Your task to perform on an android device: move a message to another label in the gmail app Image 0: 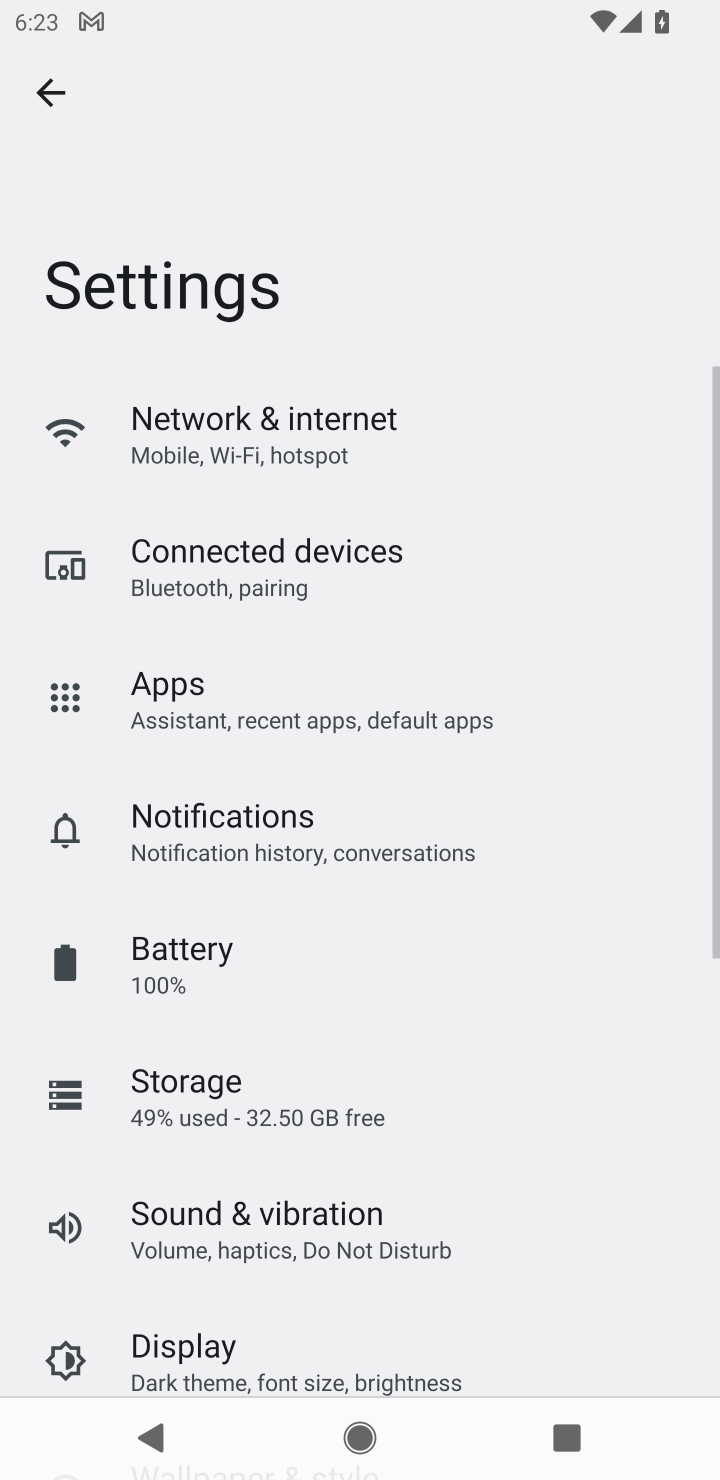
Step 0: press home button
Your task to perform on an android device: move a message to another label in the gmail app Image 1: 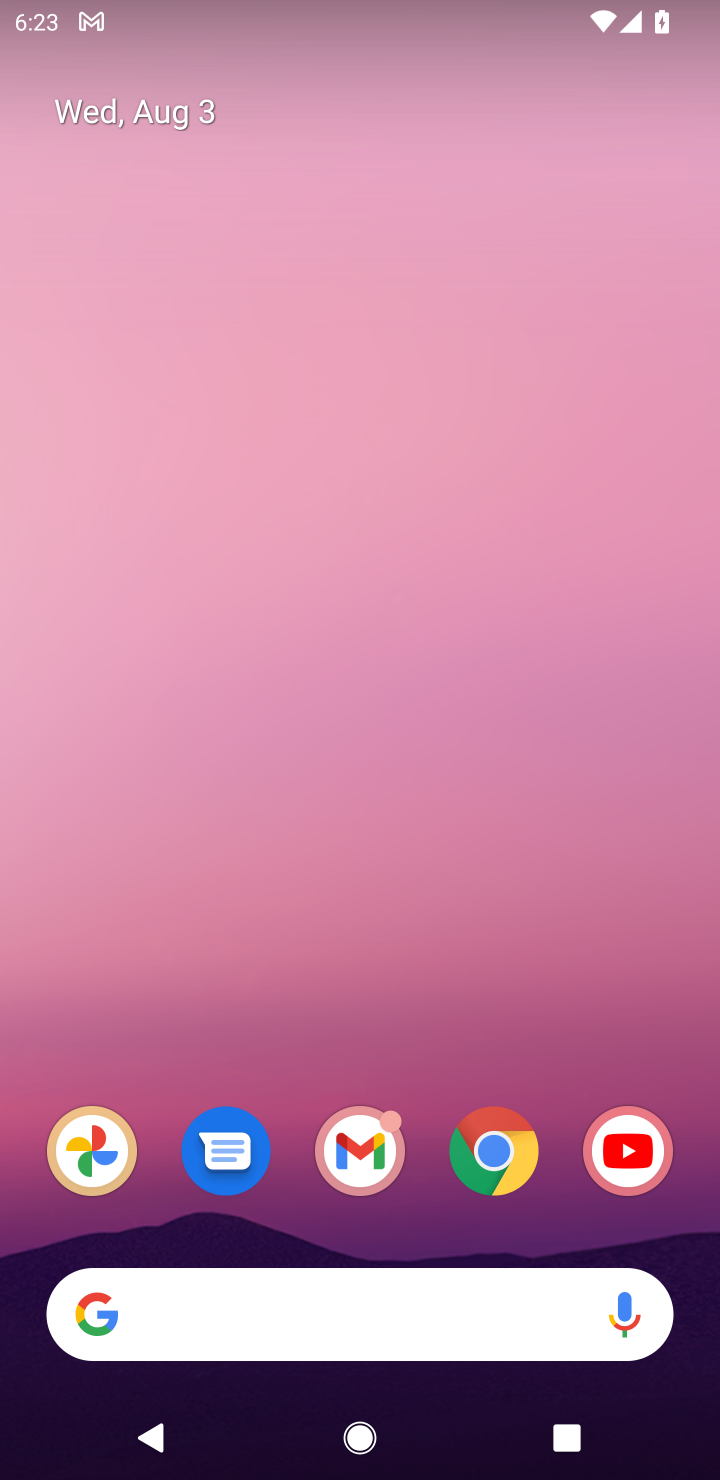
Step 1: click (365, 1171)
Your task to perform on an android device: move a message to another label in the gmail app Image 2: 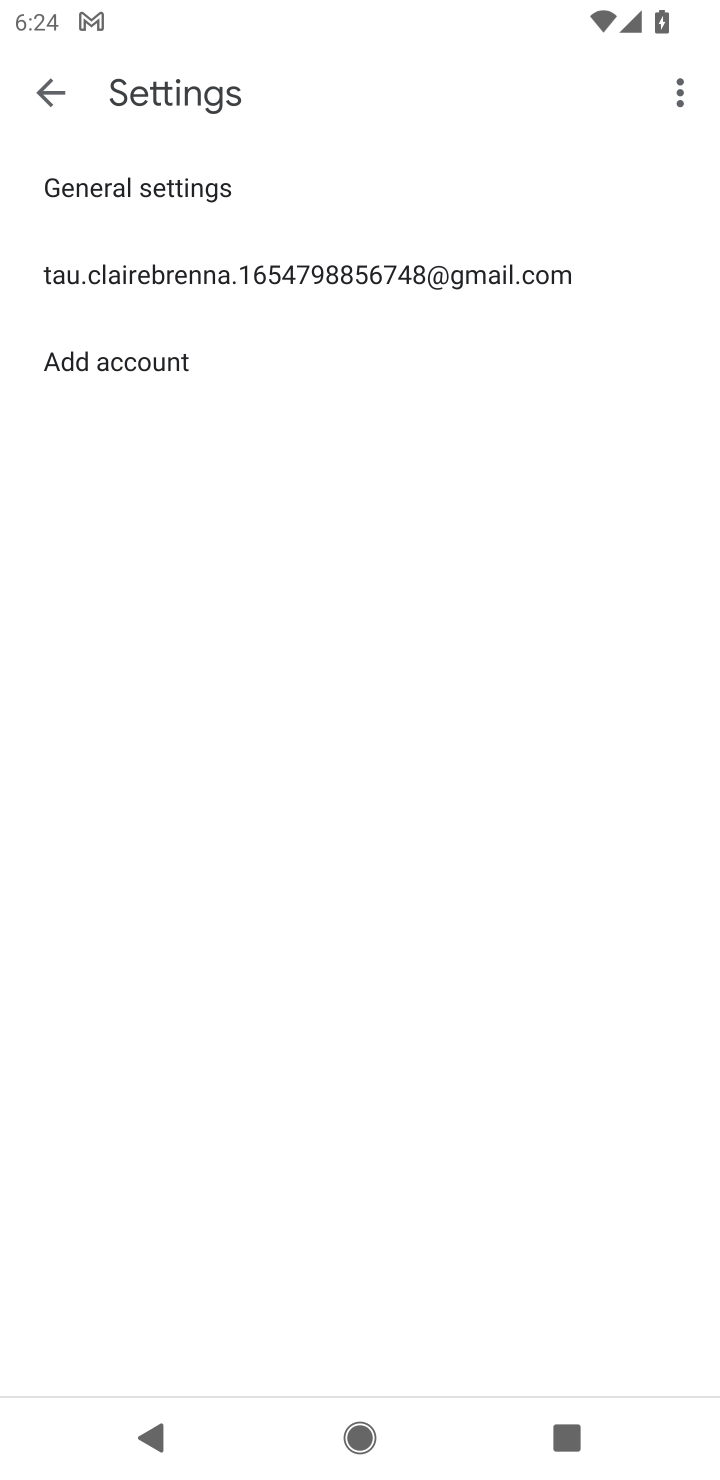
Step 2: click (63, 99)
Your task to perform on an android device: move a message to another label in the gmail app Image 3: 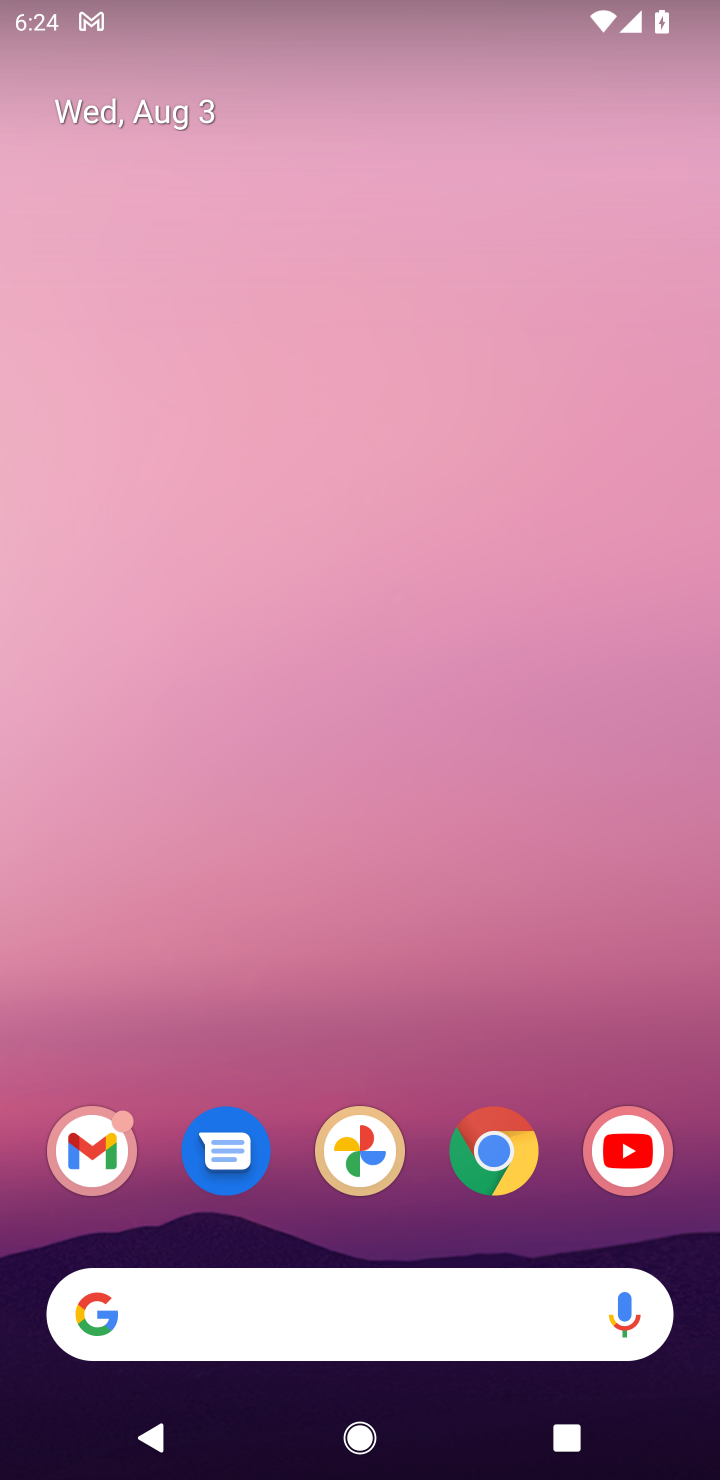
Step 3: click (102, 1163)
Your task to perform on an android device: move a message to another label in the gmail app Image 4: 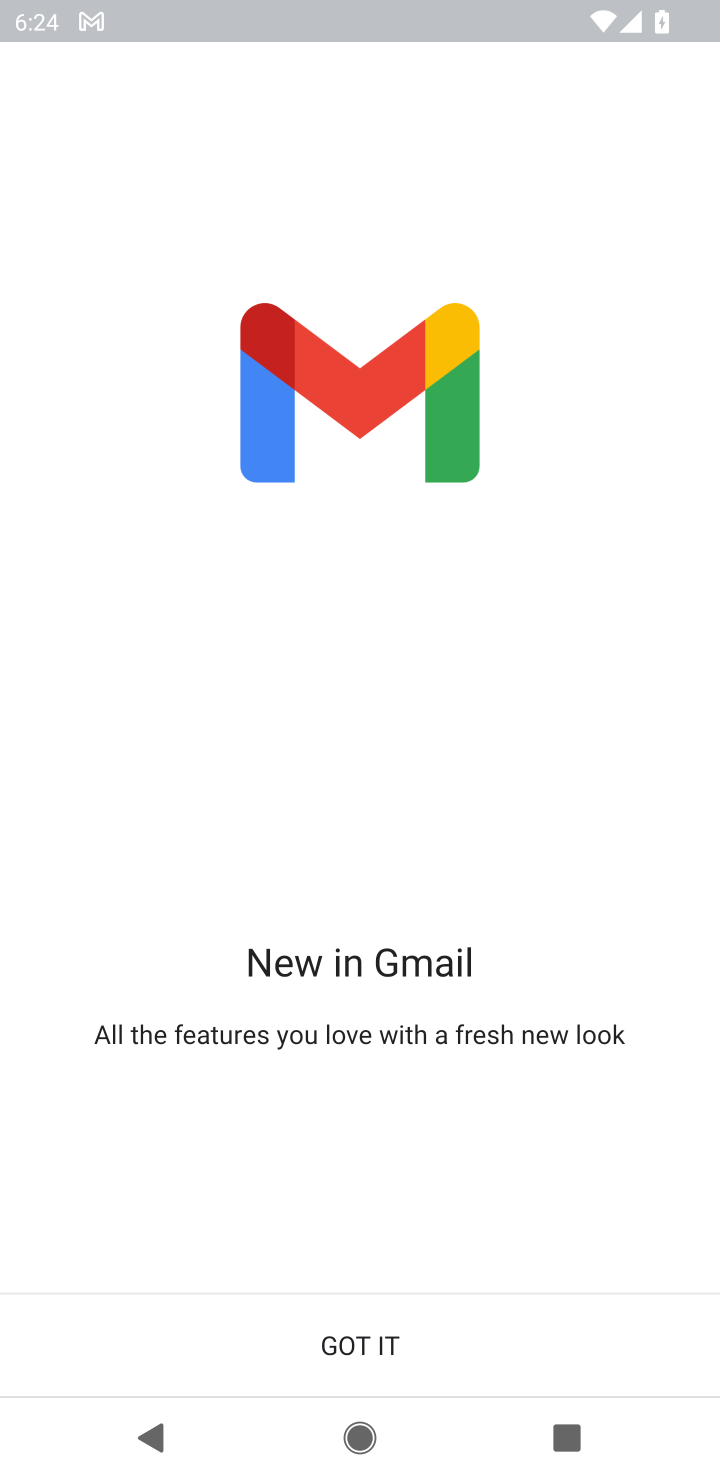
Step 4: click (418, 1332)
Your task to perform on an android device: move a message to another label in the gmail app Image 5: 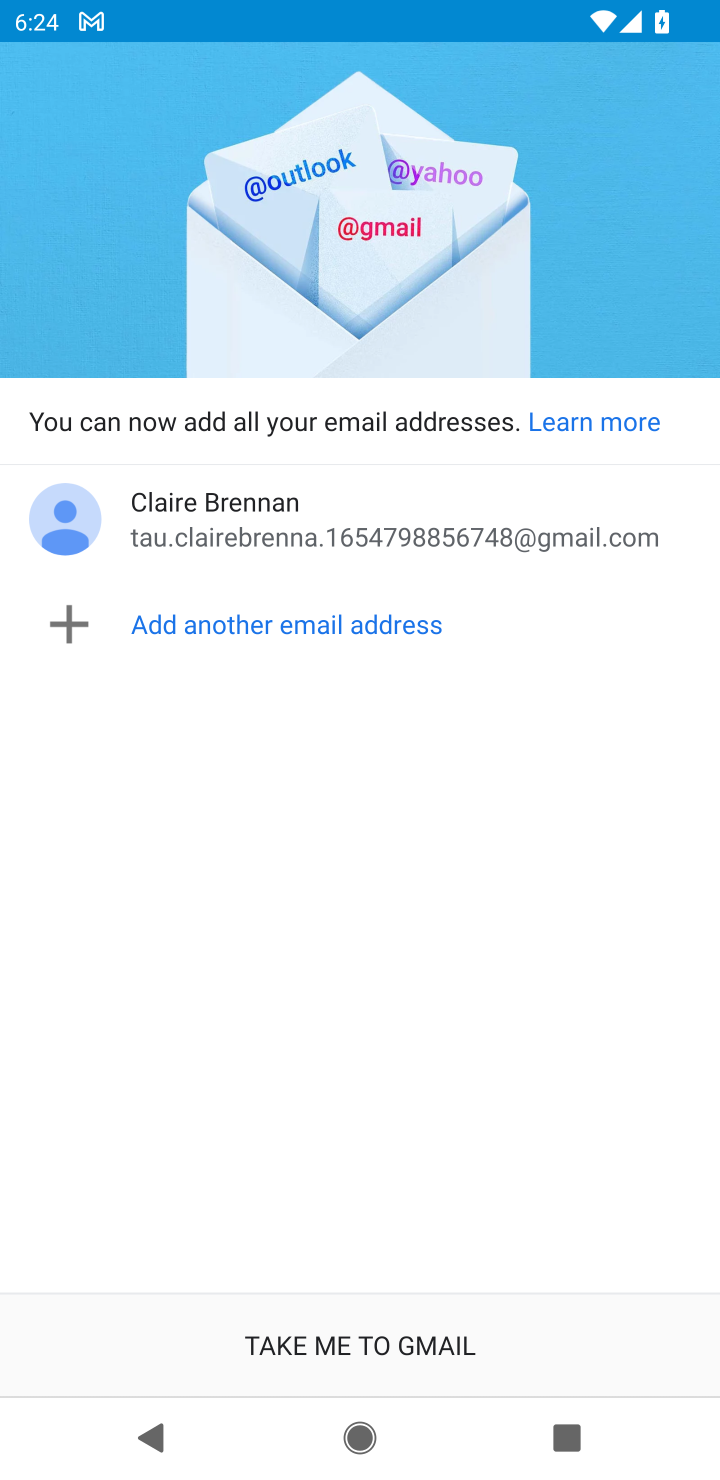
Step 5: click (418, 1332)
Your task to perform on an android device: move a message to another label in the gmail app Image 6: 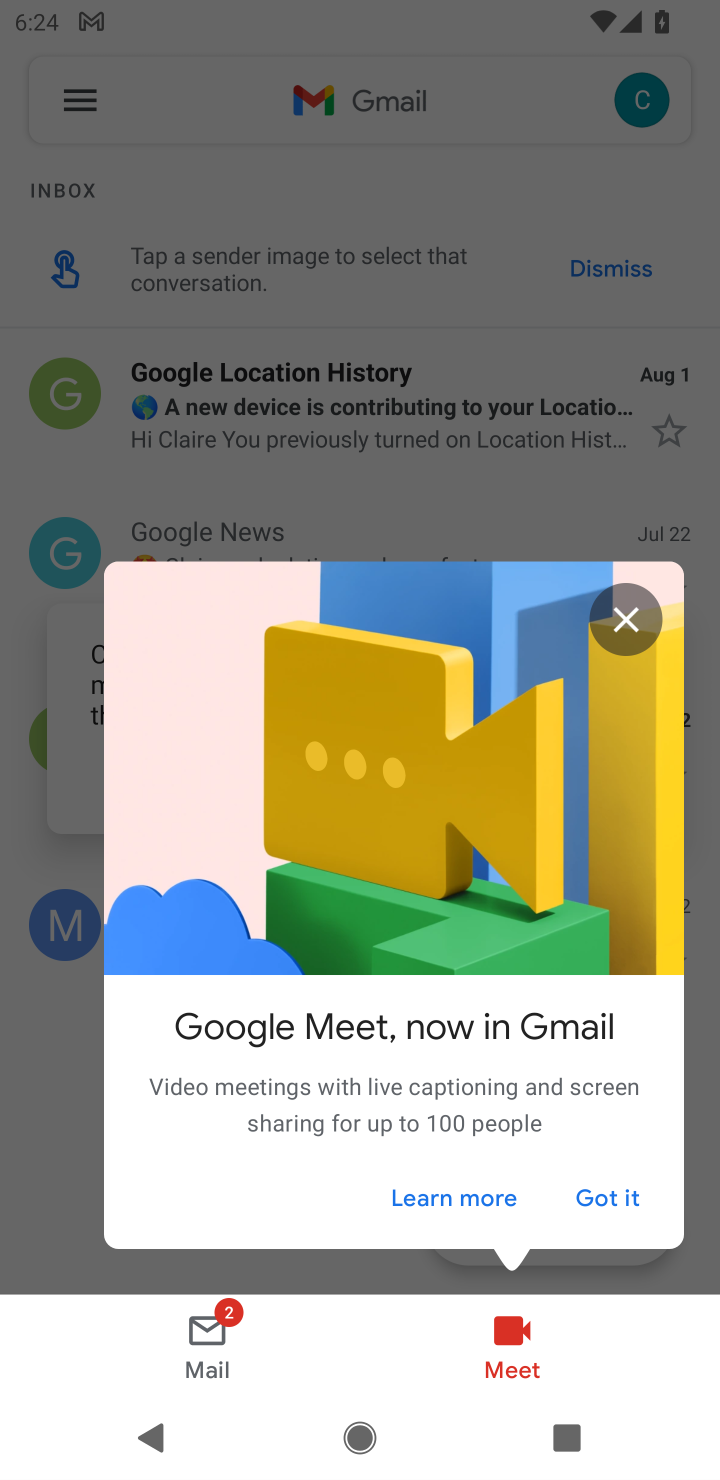
Step 6: click (630, 612)
Your task to perform on an android device: move a message to another label in the gmail app Image 7: 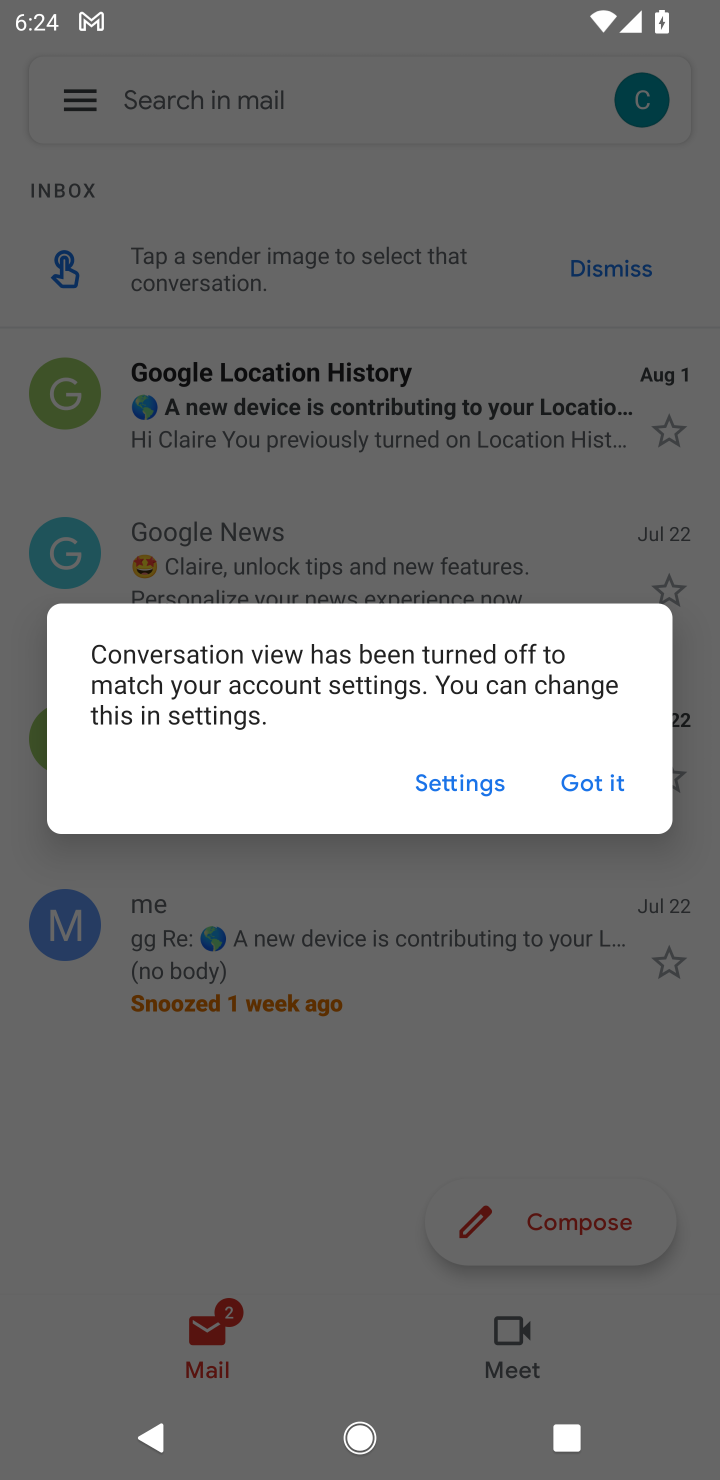
Step 7: click (574, 777)
Your task to perform on an android device: move a message to another label in the gmail app Image 8: 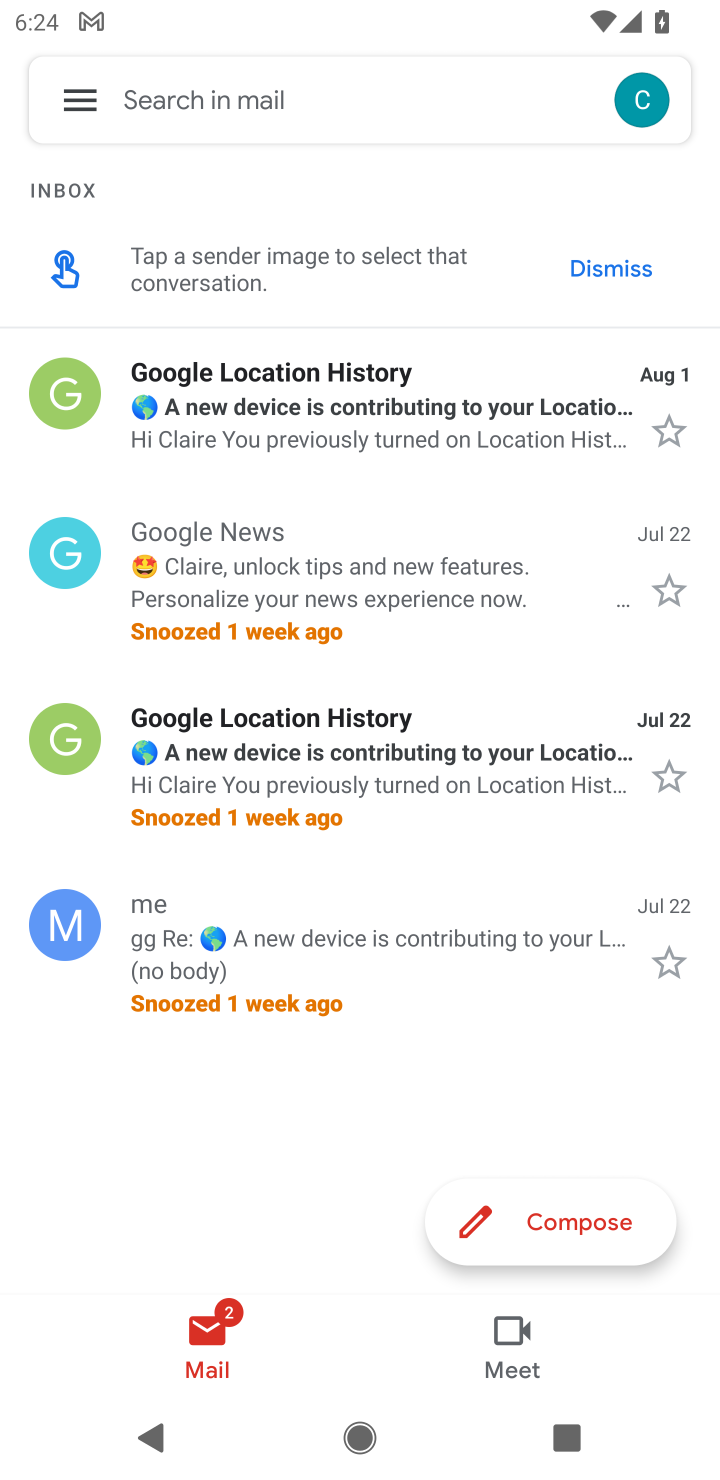
Step 8: click (520, 591)
Your task to perform on an android device: move a message to another label in the gmail app Image 9: 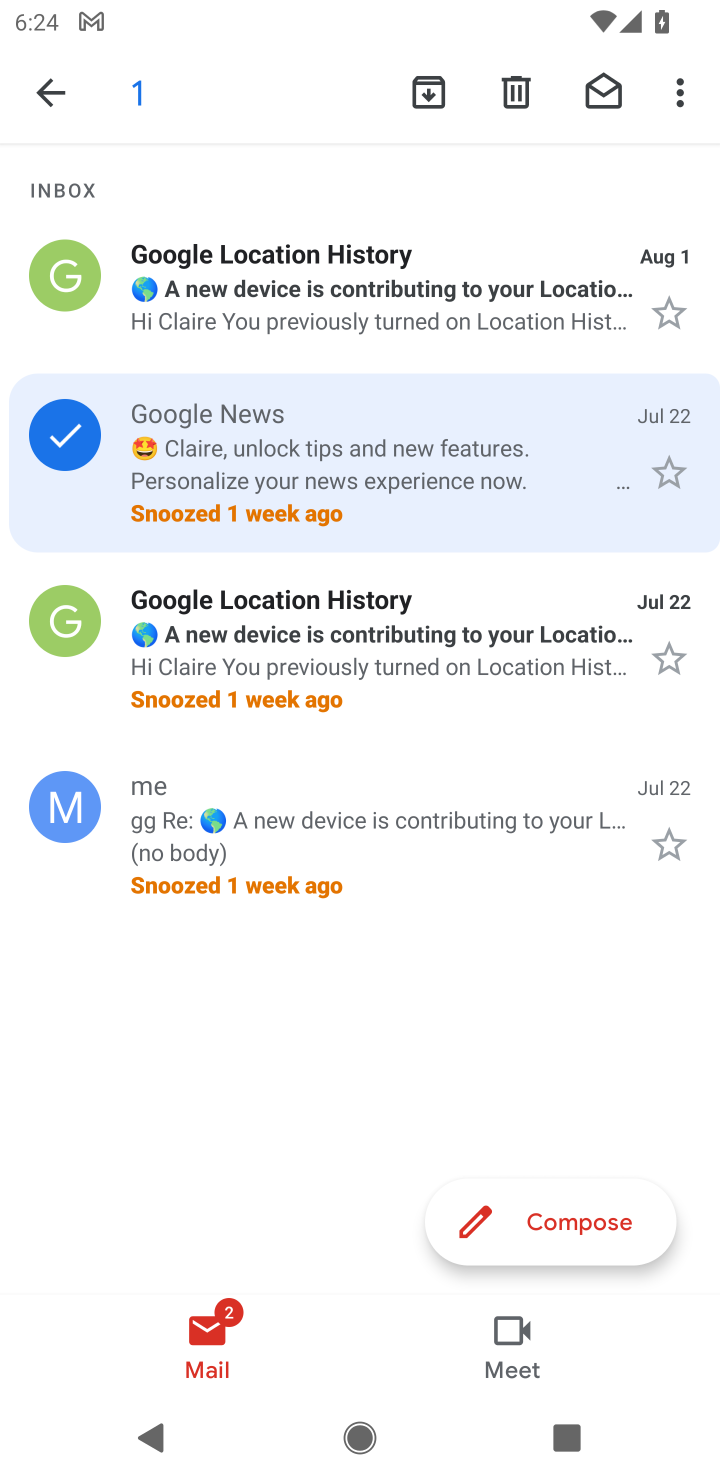
Step 9: click (694, 89)
Your task to perform on an android device: move a message to another label in the gmail app Image 10: 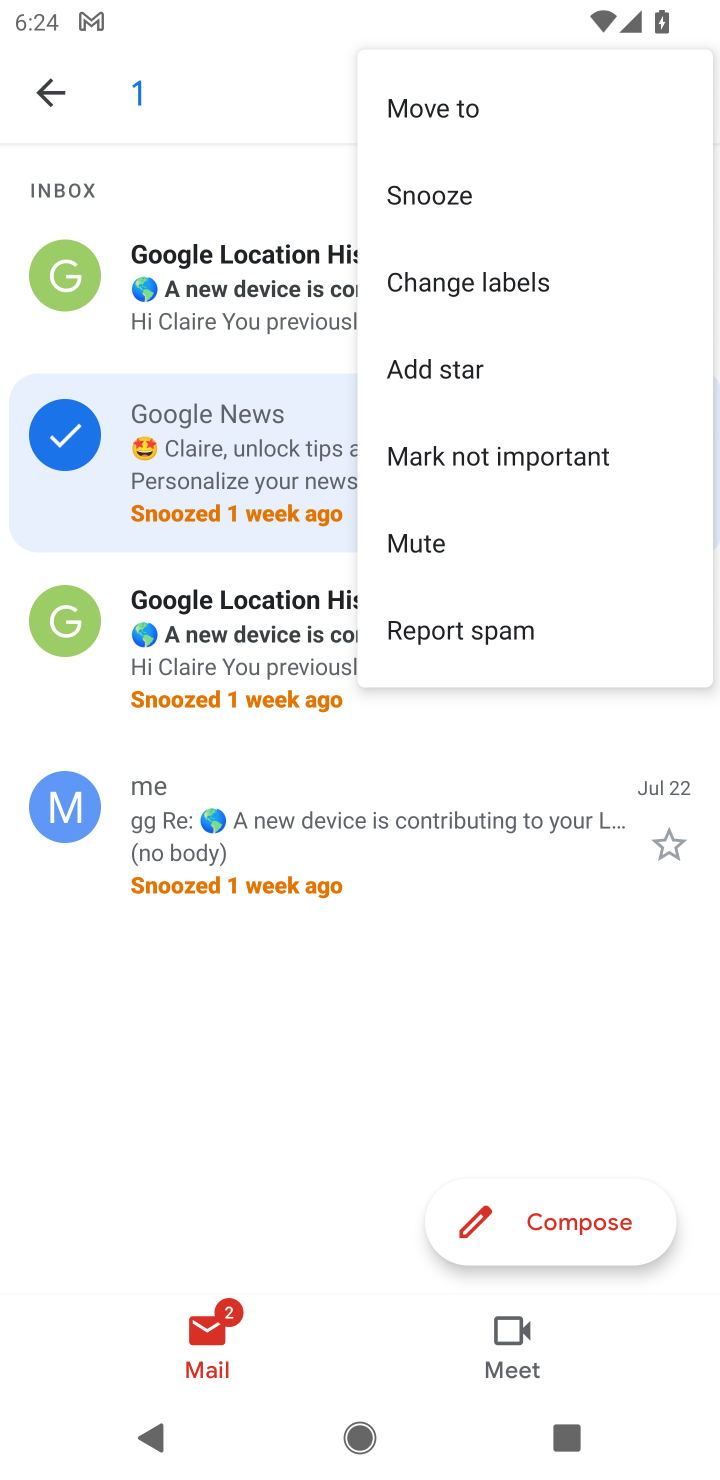
Step 10: click (438, 272)
Your task to perform on an android device: move a message to another label in the gmail app Image 11: 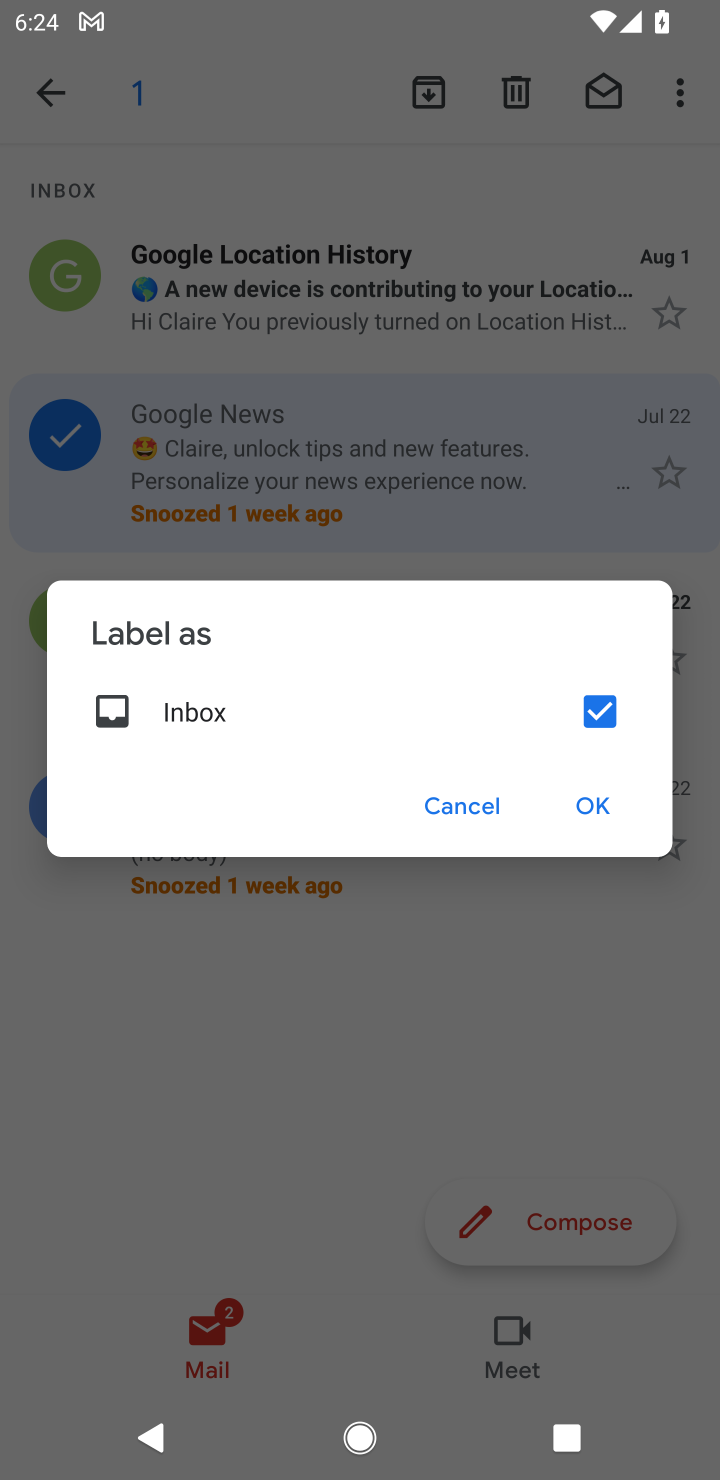
Step 11: click (594, 693)
Your task to perform on an android device: move a message to another label in the gmail app Image 12: 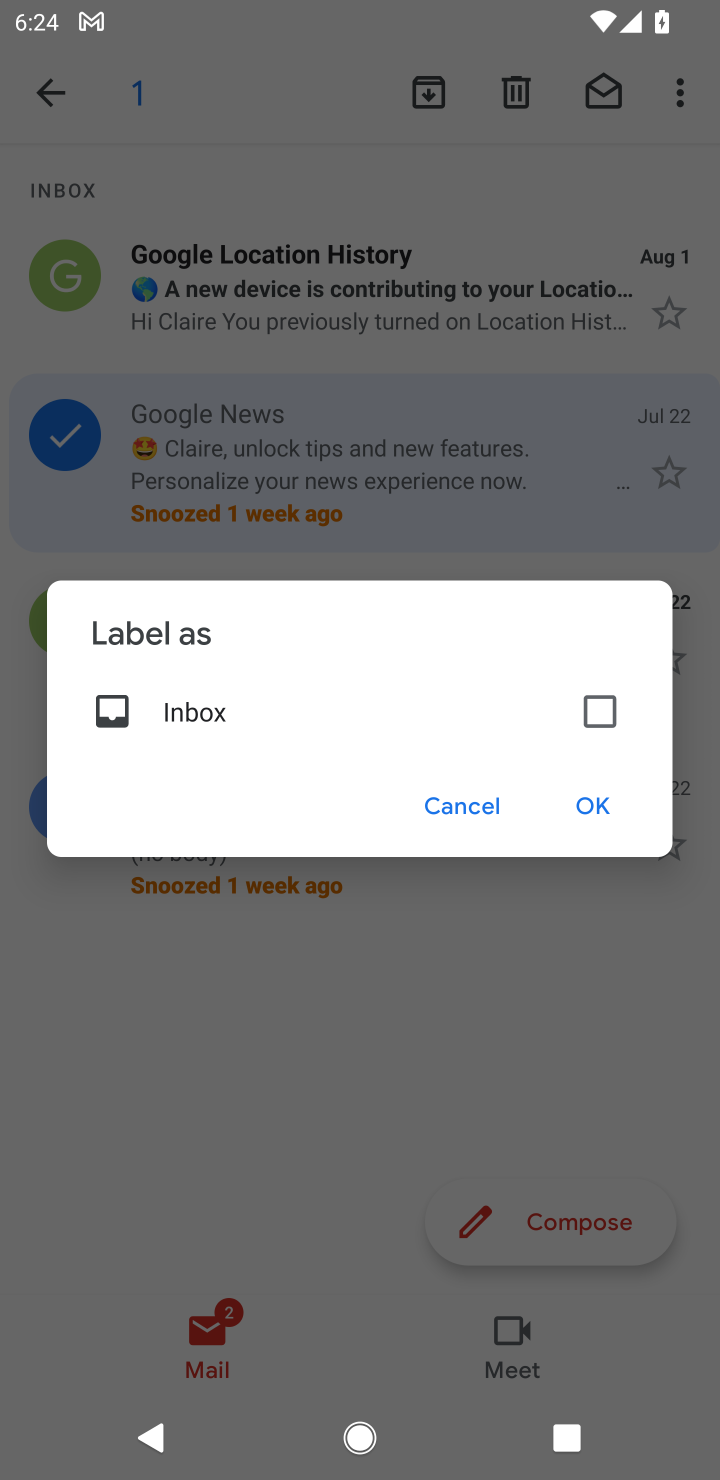
Step 12: click (598, 811)
Your task to perform on an android device: move a message to another label in the gmail app Image 13: 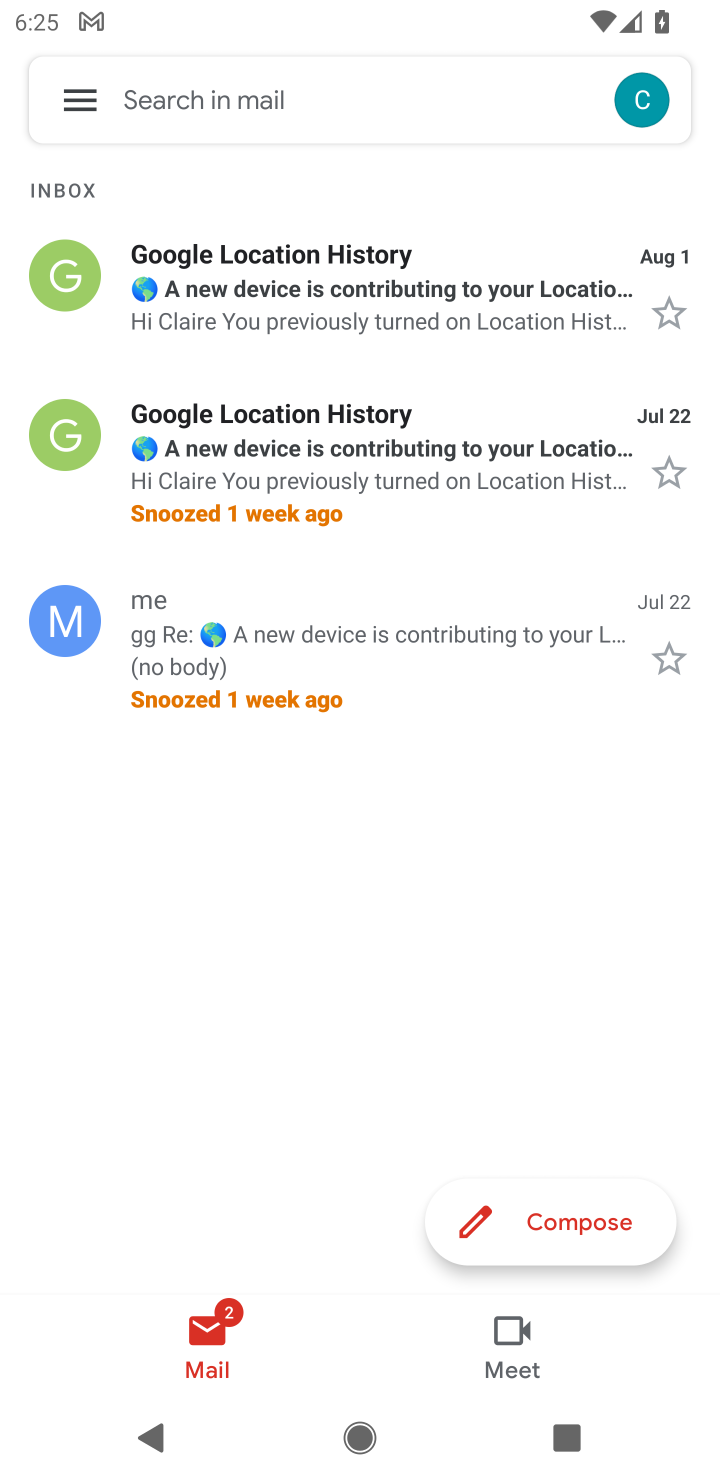
Step 13: task complete